Your task to perform on an android device: Open calendar and show me the second week of next month Image 0: 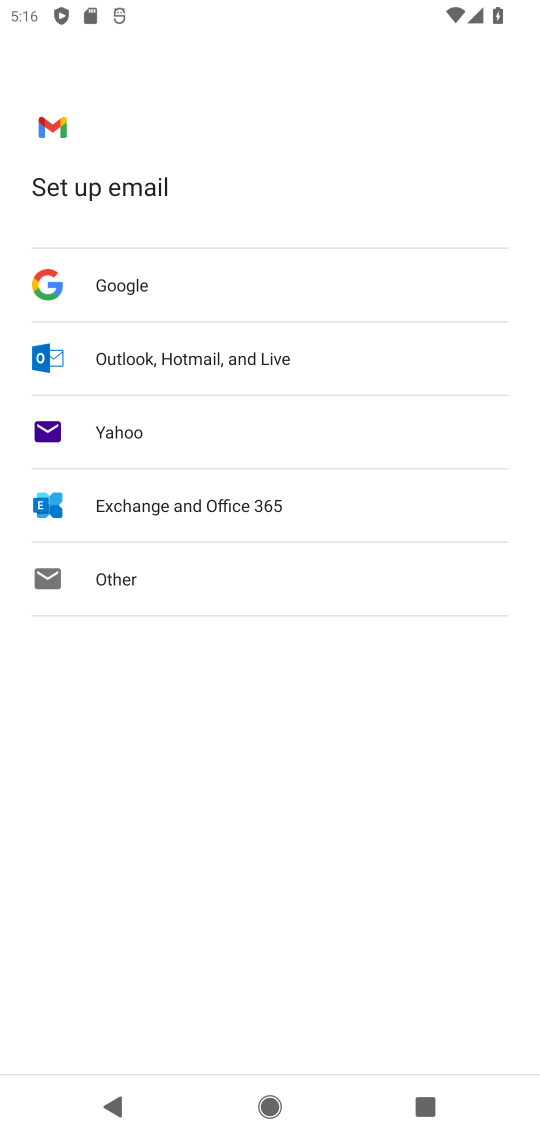
Step 0: press home button
Your task to perform on an android device: Open calendar and show me the second week of next month Image 1: 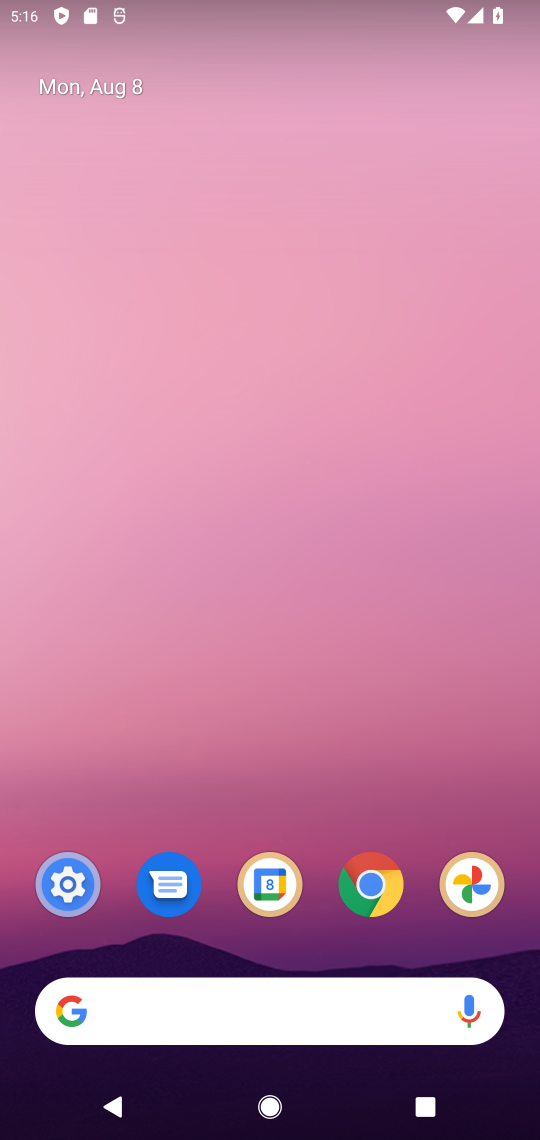
Step 1: drag from (408, 813) to (284, 90)
Your task to perform on an android device: Open calendar and show me the second week of next month Image 2: 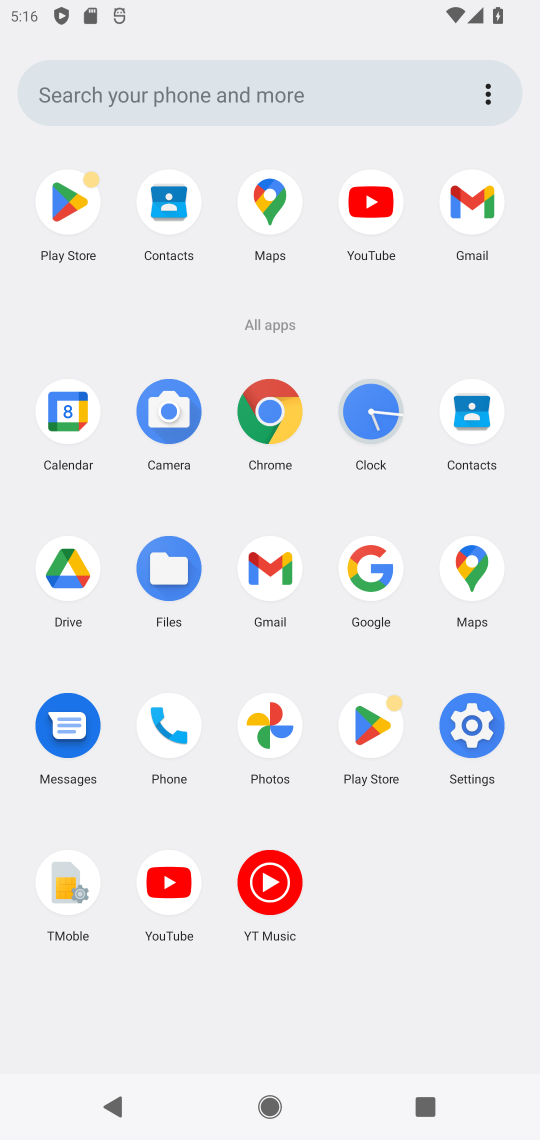
Step 2: click (62, 411)
Your task to perform on an android device: Open calendar and show me the second week of next month Image 3: 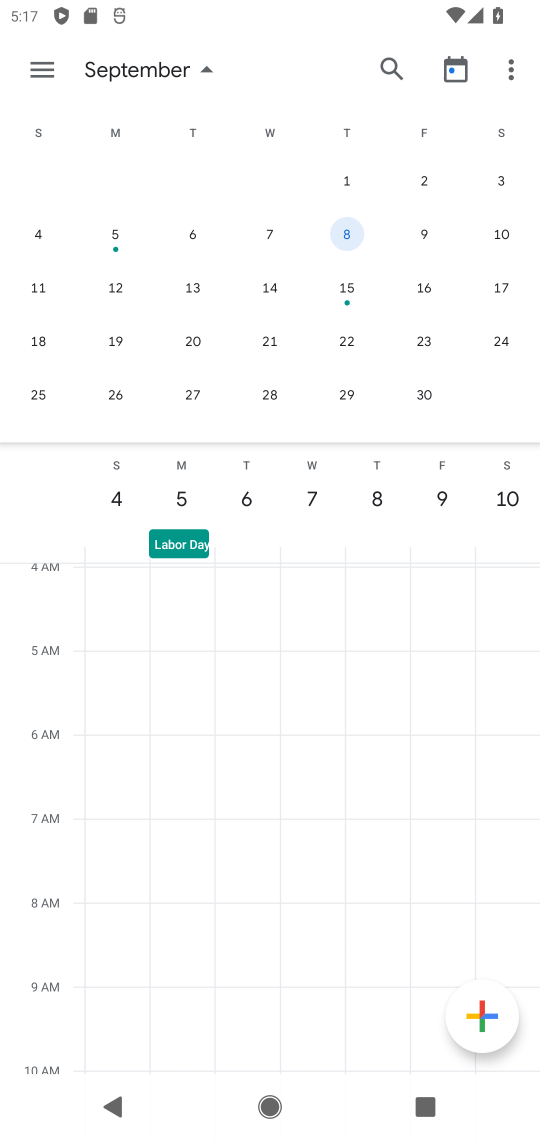
Step 3: click (348, 295)
Your task to perform on an android device: Open calendar and show me the second week of next month Image 4: 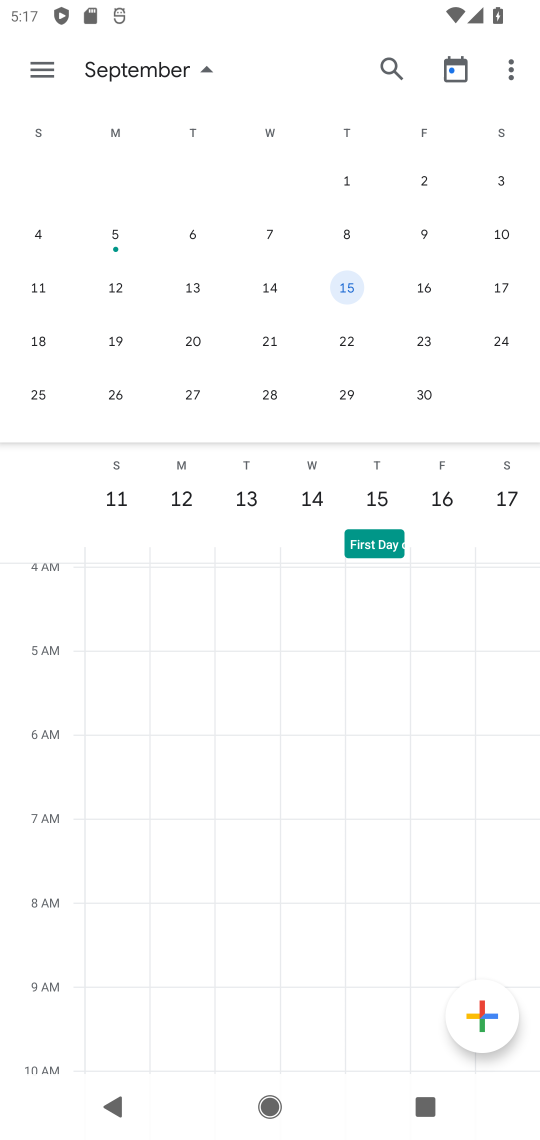
Step 4: task complete